Your task to perform on an android device: toggle airplane mode Image 0: 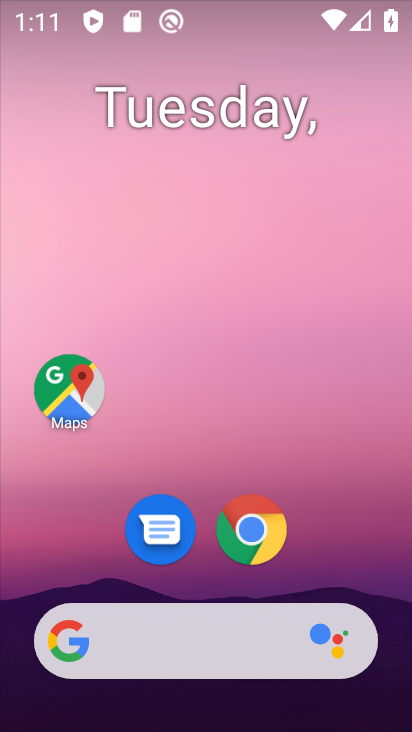
Step 0: drag from (364, 553) to (345, 86)
Your task to perform on an android device: toggle airplane mode Image 1: 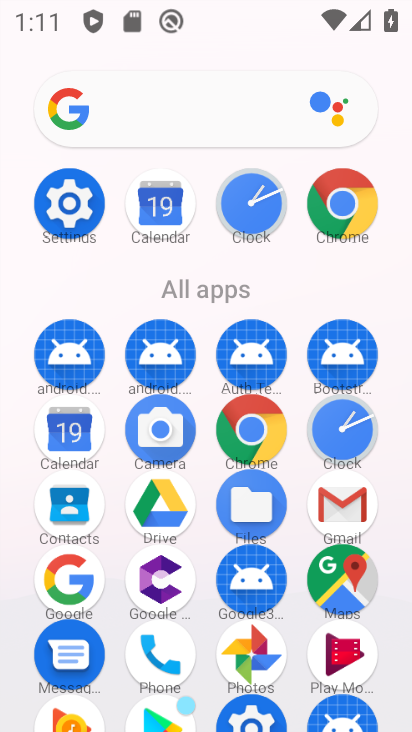
Step 1: click (73, 212)
Your task to perform on an android device: toggle airplane mode Image 2: 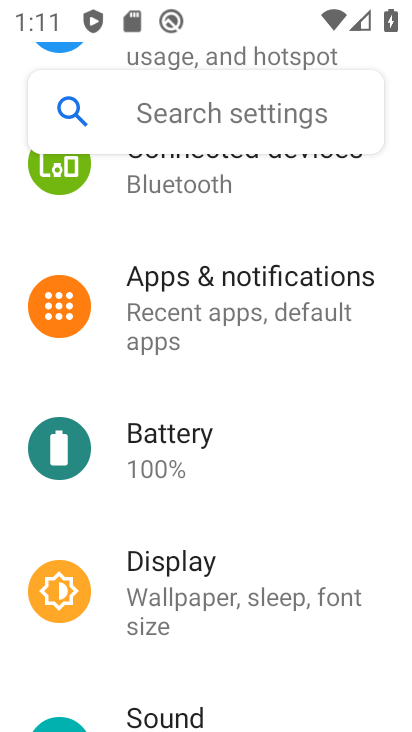
Step 2: drag from (283, 240) to (321, 559)
Your task to perform on an android device: toggle airplane mode Image 3: 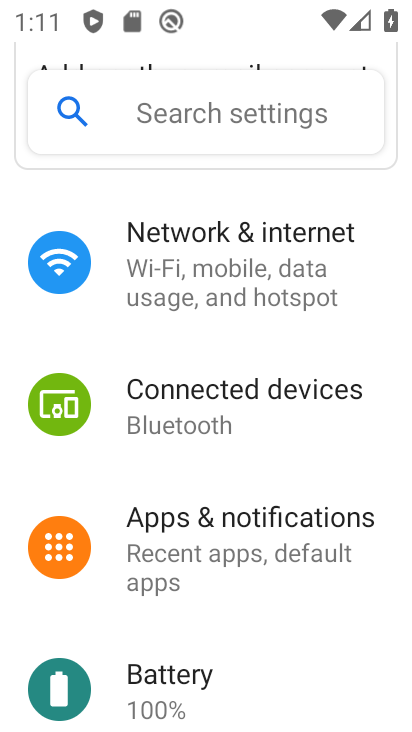
Step 3: click (300, 285)
Your task to perform on an android device: toggle airplane mode Image 4: 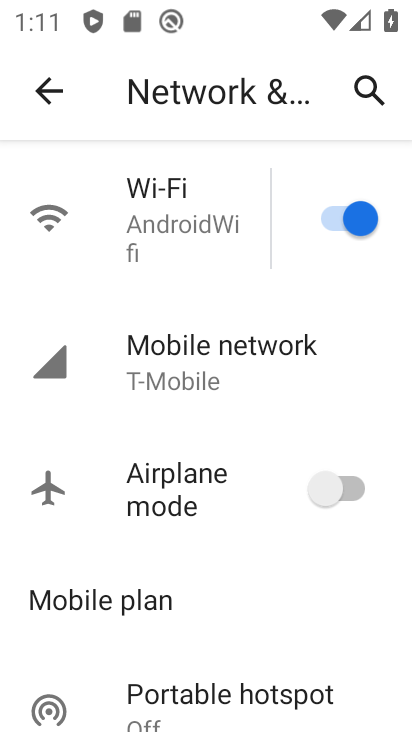
Step 4: click (354, 503)
Your task to perform on an android device: toggle airplane mode Image 5: 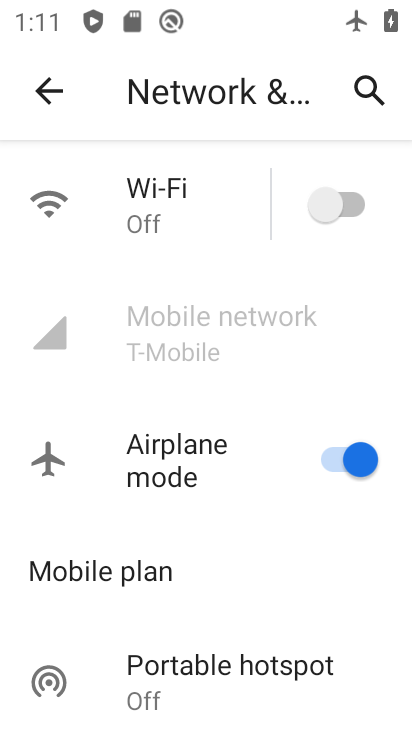
Step 5: task complete